Your task to perform on an android device: change the clock display to digital Image 0: 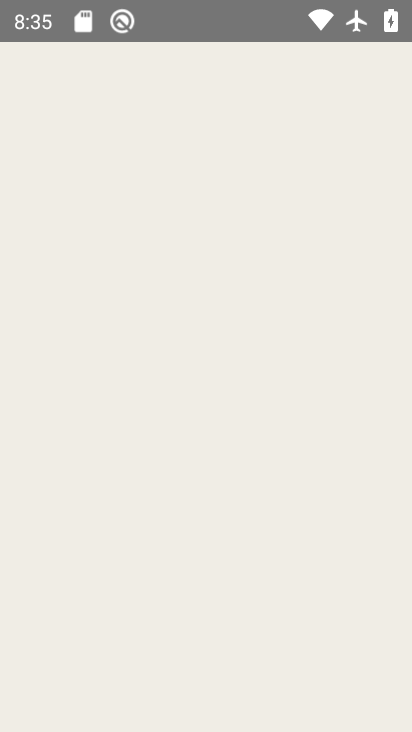
Step 0: click (299, 155)
Your task to perform on an android device: change the clock display to digital Image 1: 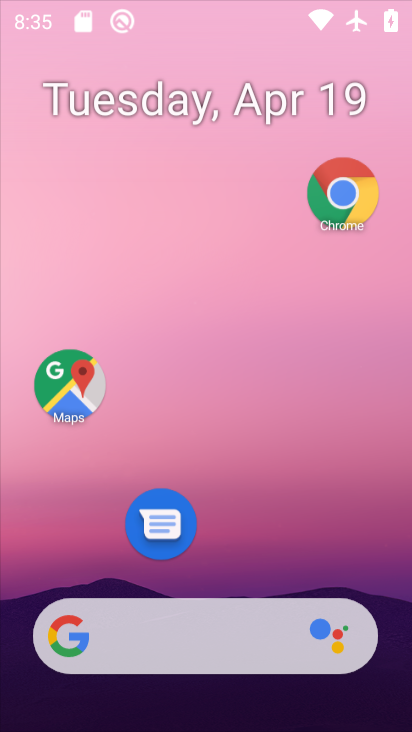
Step 1: drag from (214, 575) to (248, 167)
Your task to perform on an android device: change the clock display to digital Image 2: 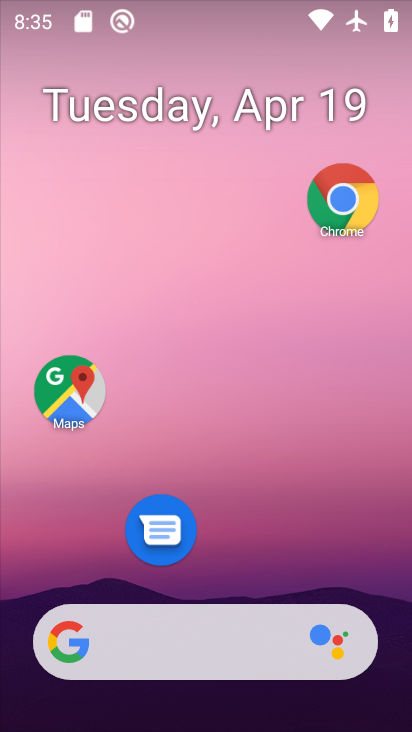
Step 2: drag from (207, 556) to (203, 35)
Your task to perform on an android device: change the clock display to digital Image 3: 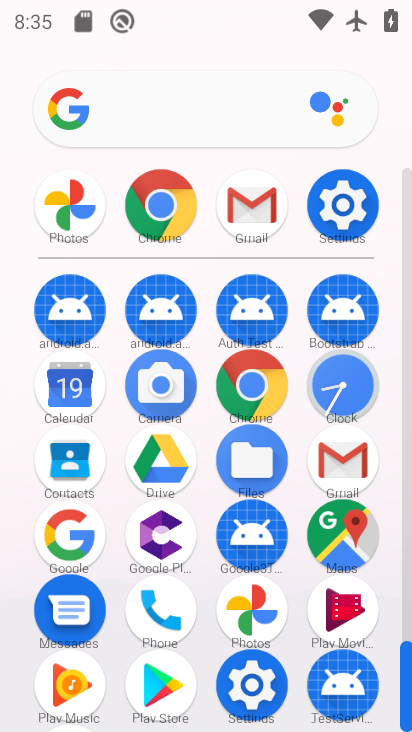
Step 3: click (252, 672)
Your task to perform on an android device: change the clock display to digital Image 4: 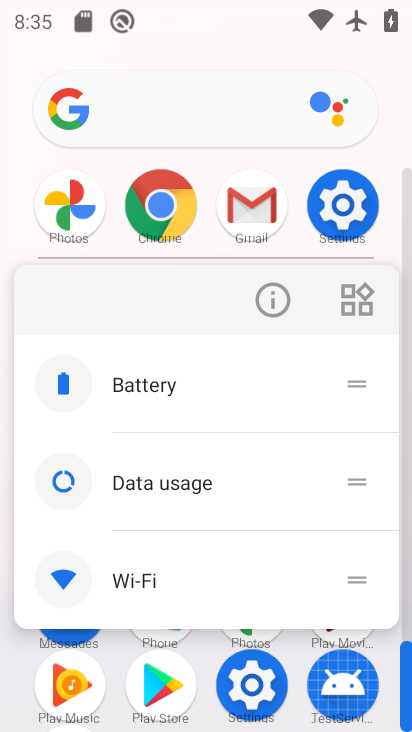
Step 4: click (267, 314)
Your task to perform on an android device: change the clock display to digital Image 5: 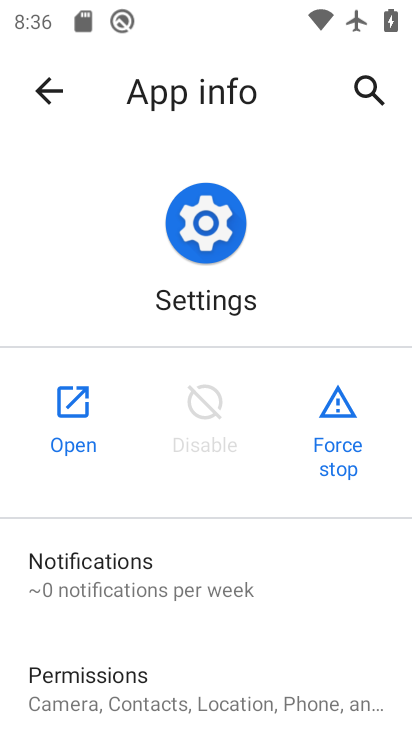
Step 5: drag from (75, 405) to (255, 651)
Your task to perform on an android device: change the clock display to digital Image 6: 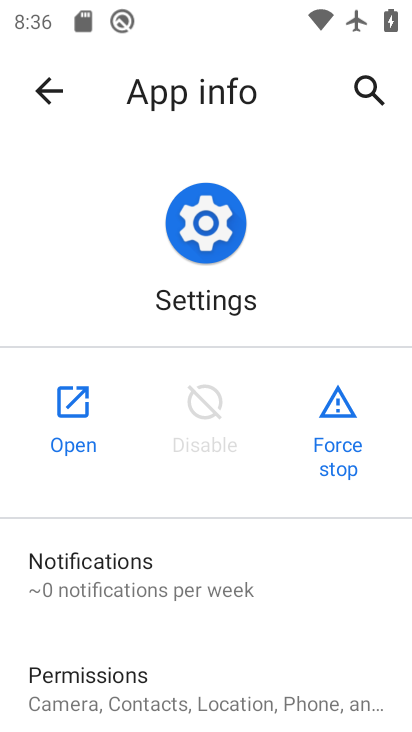
Step 6: press home button
Your task to perform on an android device: change the clock display to digital Image 7: 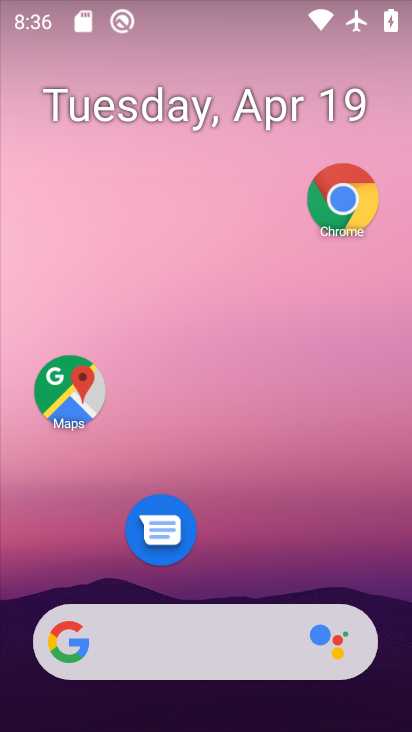
Step 7: drag from (220, 452) to (386, 99)
Your task to perform on an android device: change the clock display to digital Image 8: 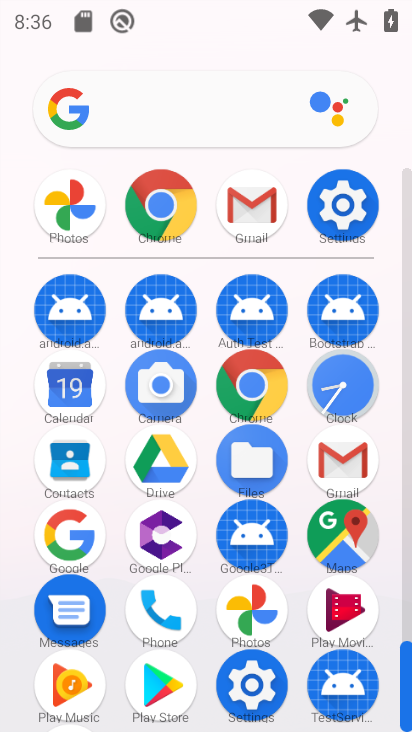
Step 8: click (330, 371)
Your task to perform on an android device: change the clock display to digital Image 9: 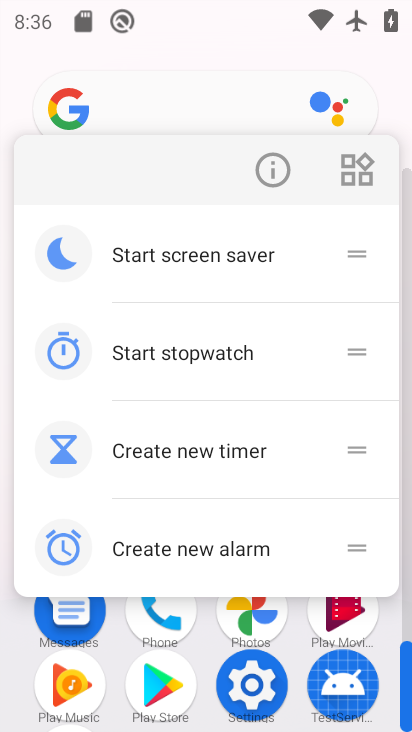
Step 9: click (269, 172)
Your task to perform on an android device: change the clock display to digital Image 10: 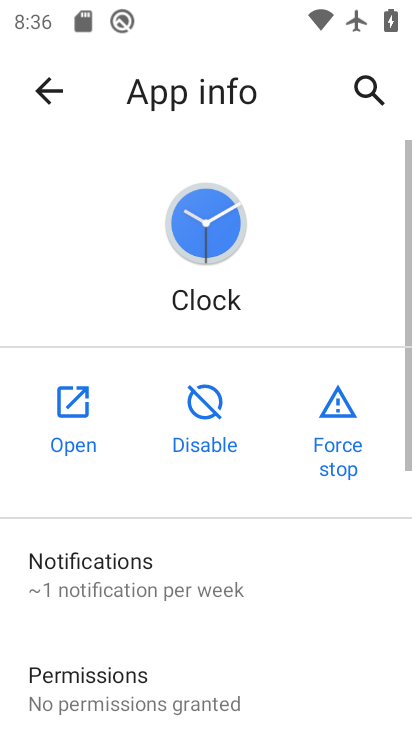
Step 10: click (79, 407)
Your task to perform on an android device: change the clock display to digital Image 11: 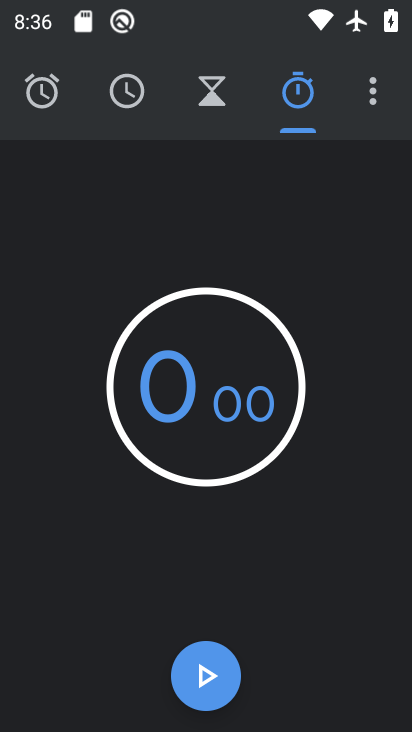
Step 11: click (375, 105)
Your task to perform on an android device: change the clock display to digital Image 12: 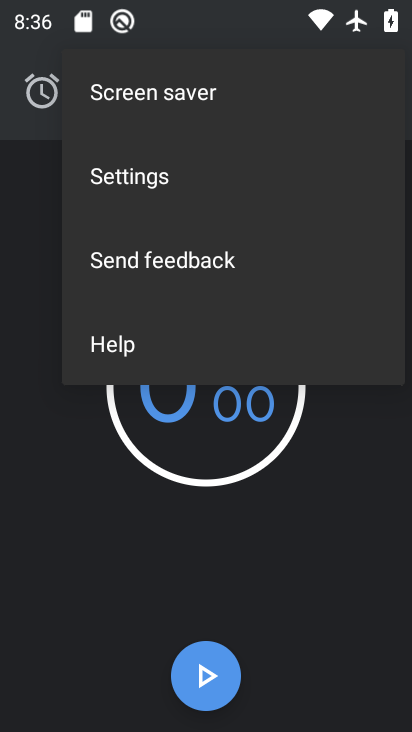
Step 12: click (160, 172)
Your task to perform on an android device: change the clock display to digital Image 13: 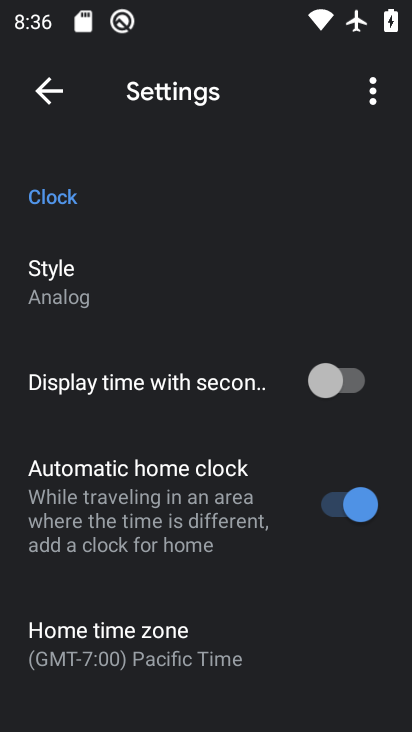
Step 13: click (286, 379)
Your task to perform on an android device: change the clock display to digital Image 14: 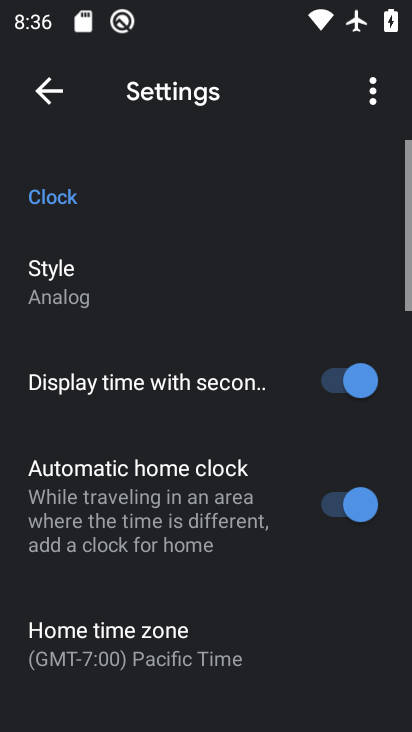
Step 14: task complete